Your task to perform on an android device: open chrome and create a bookmark for the current page Image 0: 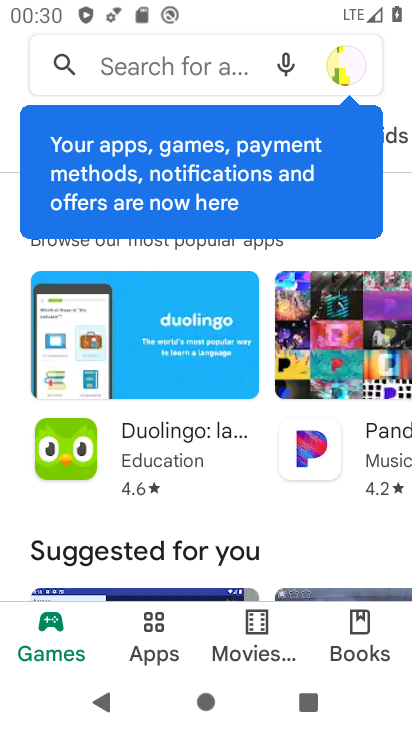
Step 0: press home button
Your task to perform on an android device: open chrome and create a bookmark for the current page Image 1: 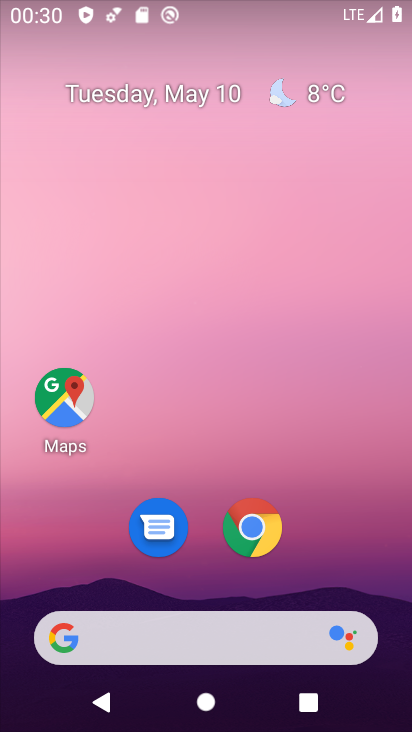
Step 1: click (258, 536)
Your task to perform on an android device: open chrome and create a bookmark for the current page Image 2: 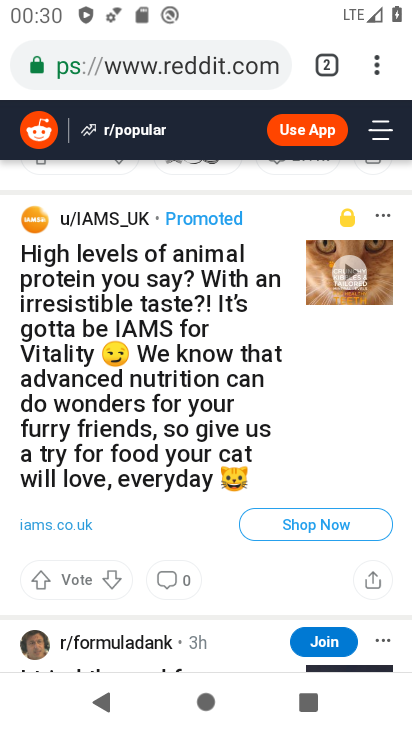
Step 2: click (377, 69)
Your task to perform on an android device: open chrome and create a bookmark for the current page Image 3: 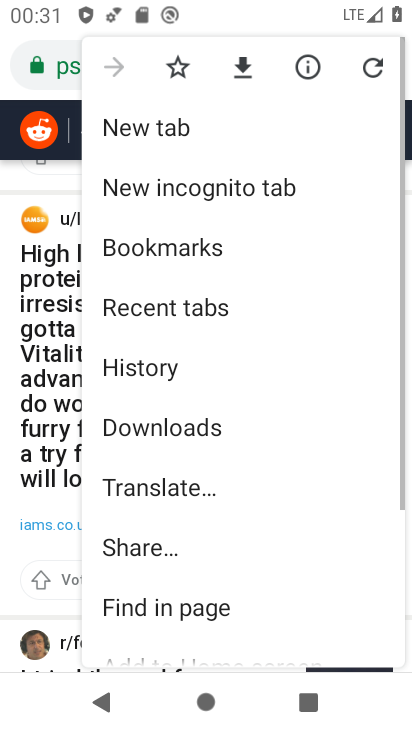
Step 3: click (171, 60)
Your task to perform on an android device: open chrome and create a bookmark for the current page Image 4: 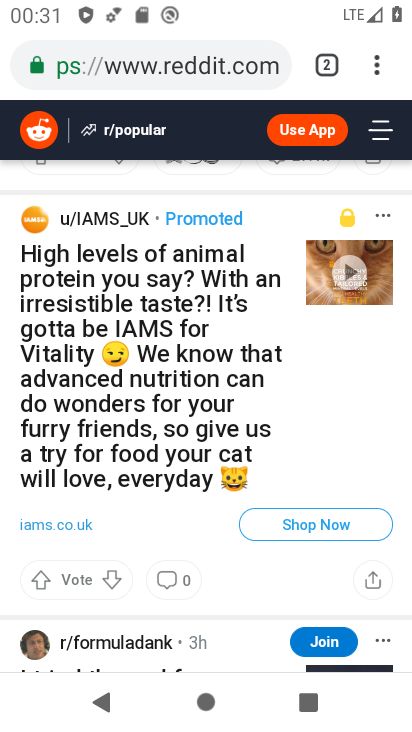
Step 4: task complete